Your task to perform on an android device: delete the emails in spam in the gmail app Image 0: 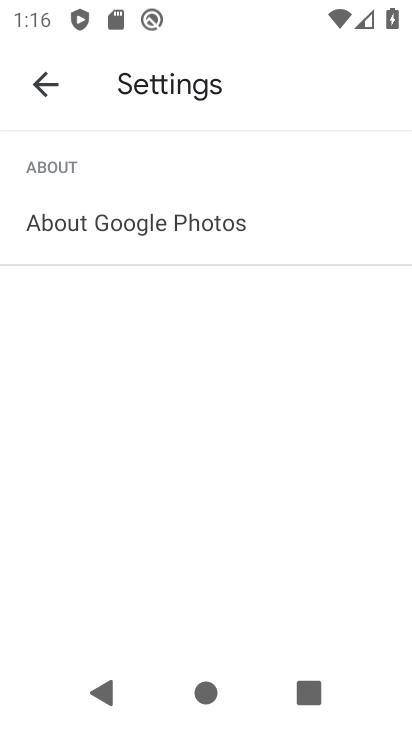
Step 0: press home button
Your task to perform on an android device: delete the emails in spam in the gmail app Image 1: 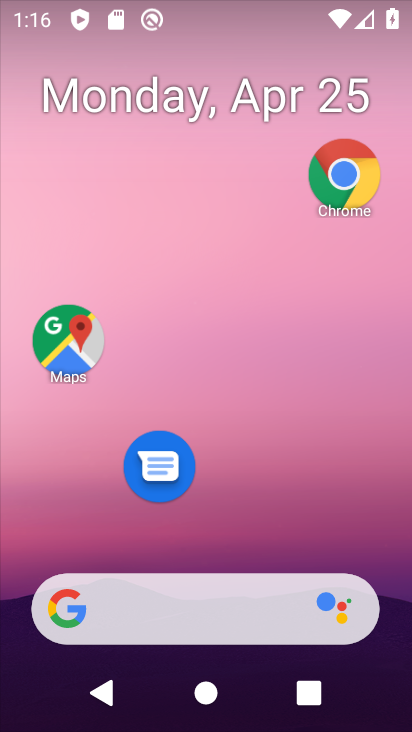
Step 1: drag from (308, 477) to (329, 50)
Your task to perform on an android device: delete the emails in spam in the gmail app Image 2: 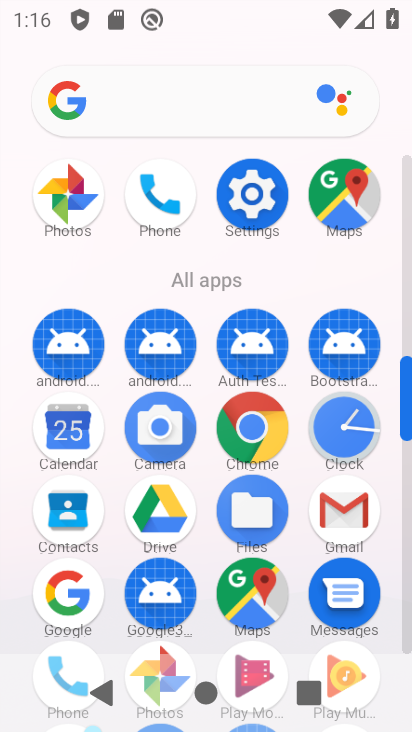
Step 2: click (351, 503)
Your task to perform on an android device: delete the emails in spam in the gmail app Image 3: 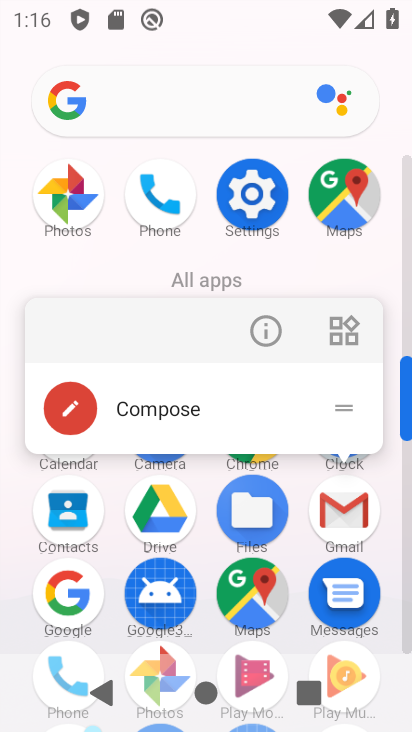
Step 3: click (353, 503)
Your task to perform on an android device: delete the emails in spam in the gmail app Image 4: 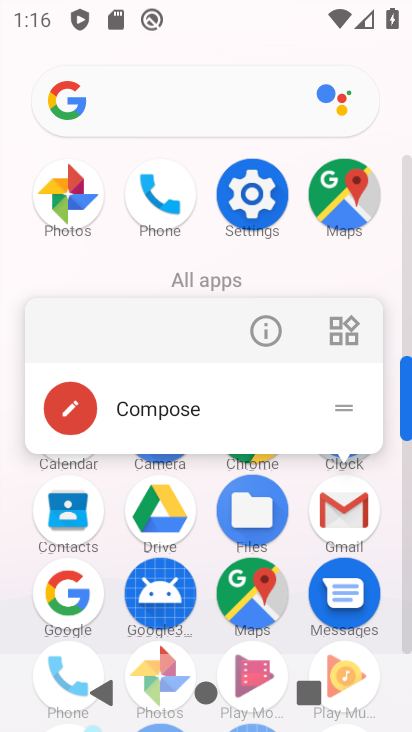
Step 4: click (353, 502)
Your task to perform on an android device: delete the emails in spam in the gmail app Image 5: 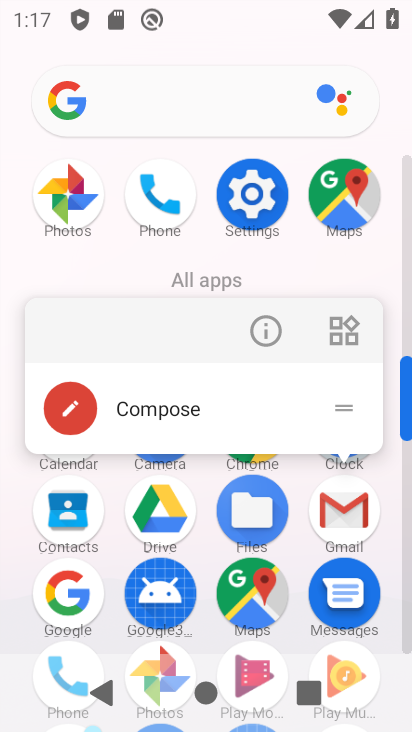
Step 5: click (323, 521)
Your task to perform on an android device: delete the emails in spam in the gmail app Image 6: 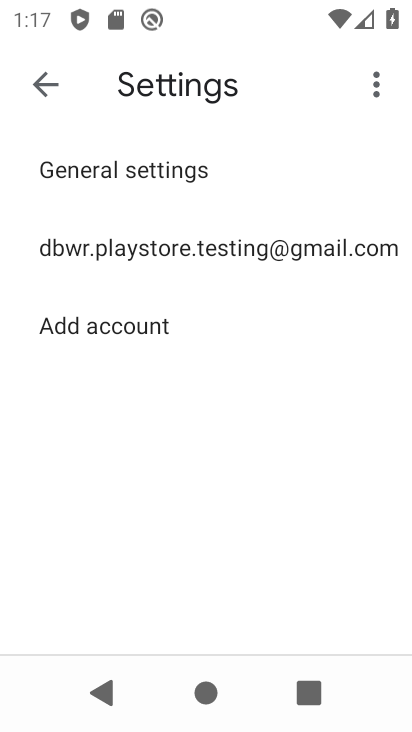
Step 6: click (49, 80)
Your task to perform on an android device: delete the emails in spam in the gmail app Image 7: 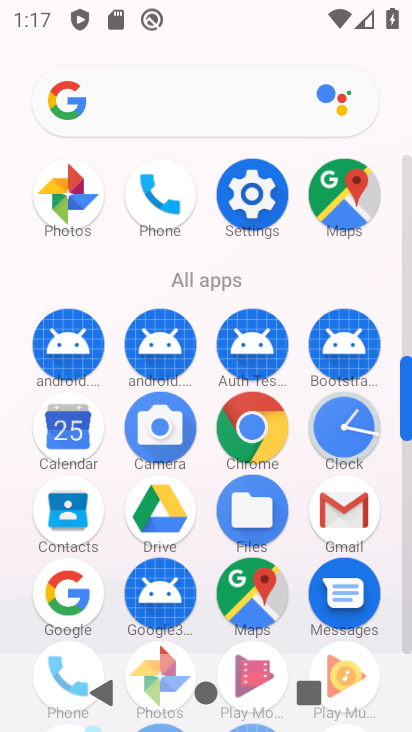
Step 7: click (361, 512)
Your task to perform on an android device: delete the emails in spam in the gmail app Image 8: 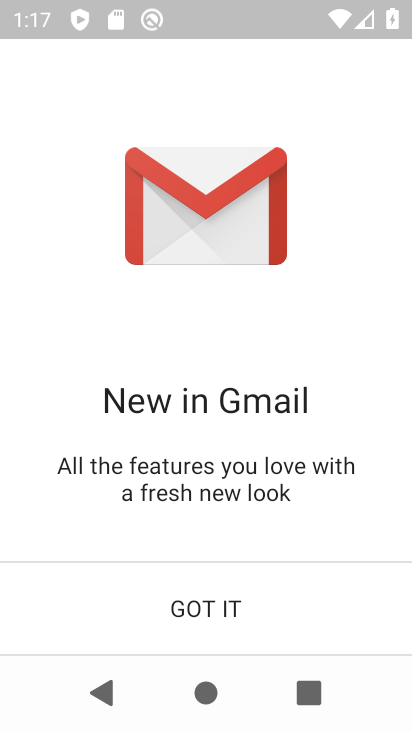
Step 8: click (171, 595)
Your task to perform on an android device: delete the emails in spam in the gmail app Image 9: 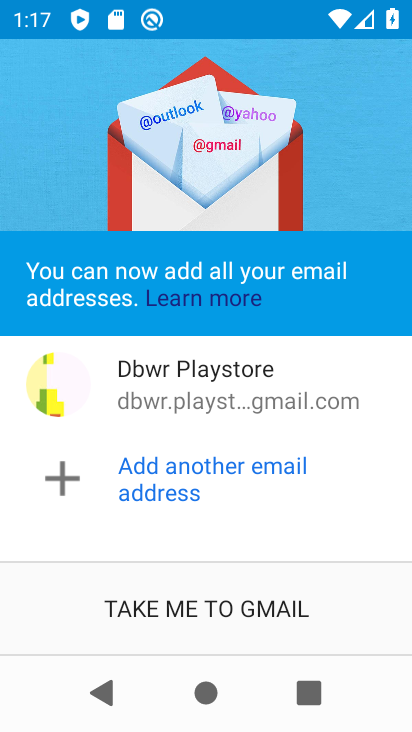
Step 9: click (160, 581)
Your task to perform on an android device: delete the emails in spam in the gmail app Image 10: 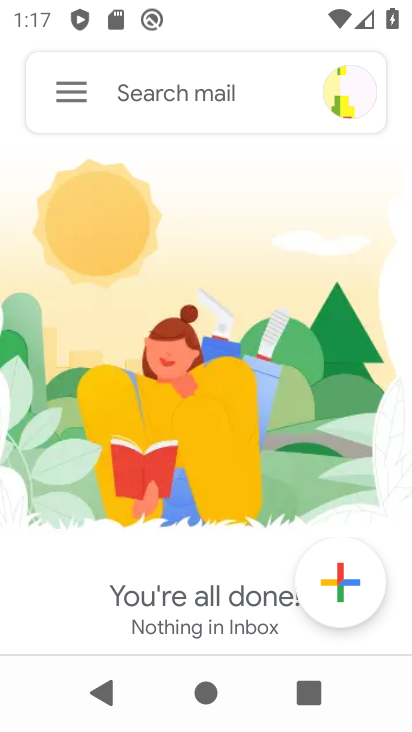
Step 10: click (52, 90)
Your task to perform on an android device: delete the emails in spam in the gmail app Image 11: 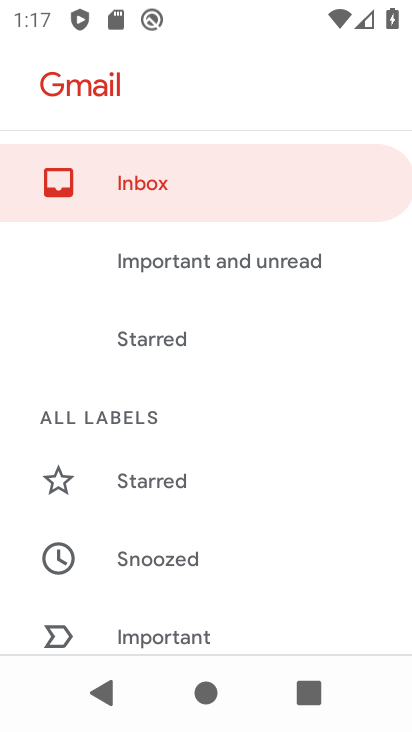
Step 11: drag from (156, 526) to (146, 349)
Your task to perform on an android device: delete the emails in spam in the gmail app Image 12: 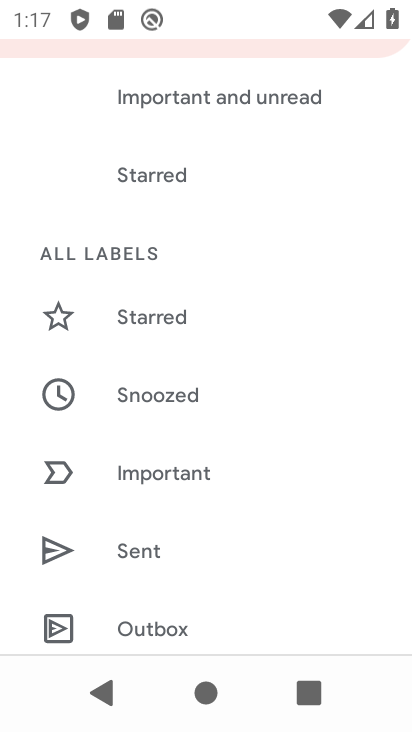
Step 12: drag from (212, 577) to (191, 341)
Your task to perform on an android device: delete the emails in spam in the gmail app Image 13: 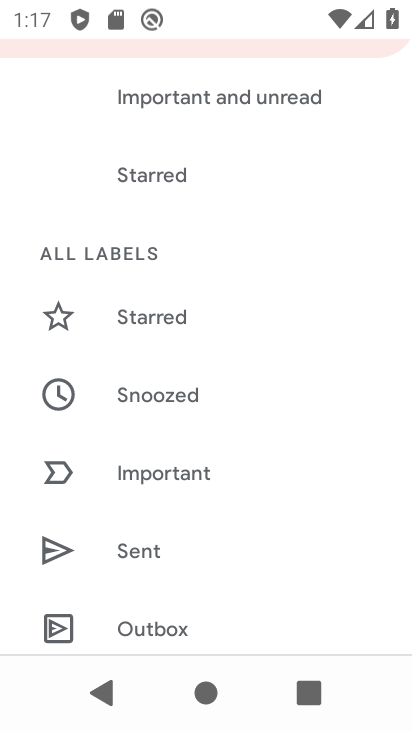
Step 13: drag from (225, 592) to (213, 349)
Your task to perform on an android device: delete the emails in spam in the gmail app Image 14: 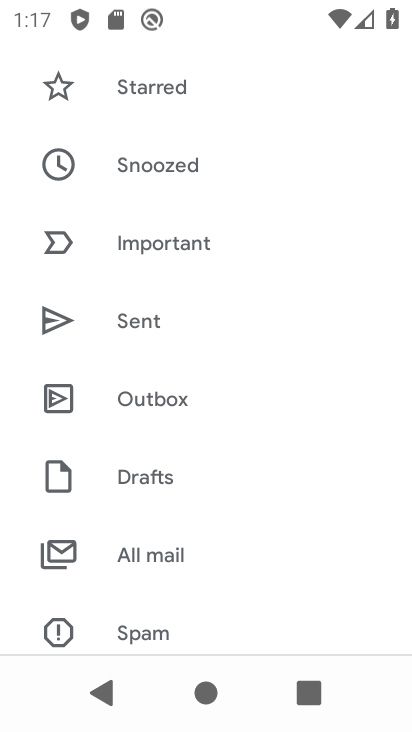
Step 14: click (148, 619)
Your task to perform on an android device: delete the emails in spam in the gmail app Image 15: 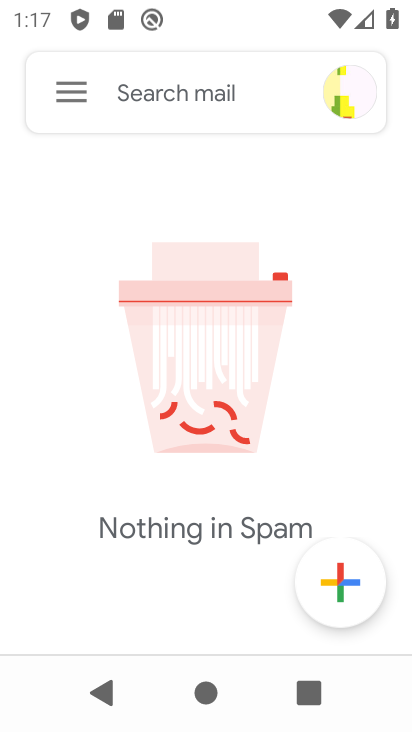
Step 15: task complete